Your task to perform on an android device: refresh tabs in the chrome app Image 0: 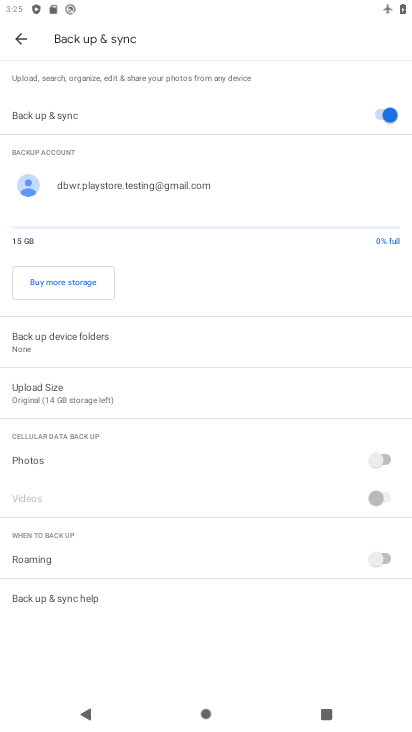
Step 0: press back button
Your task to perform on an android device: refresh tabs in the chrome app Image 1: 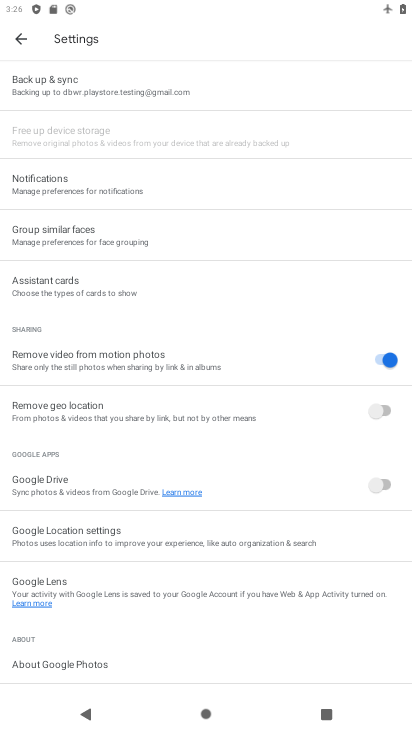
Step 1: press home button
Your task to perform on an android device: refresh tabs in the chrome app Image 2: 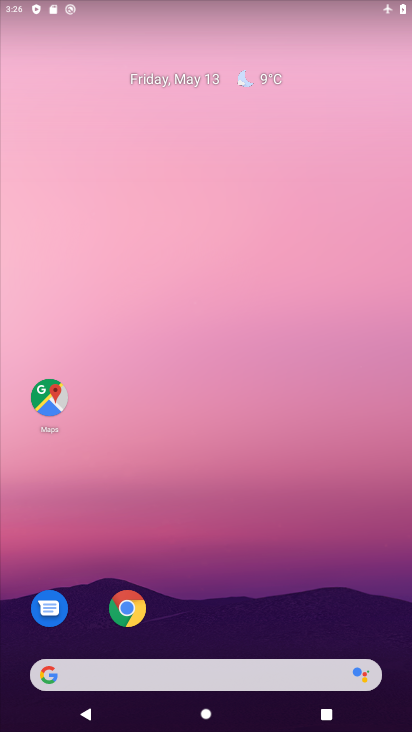
Step 2: click (132, 614)
Your task to perform on an android device: refresh tabs in the chrome app Image 3: 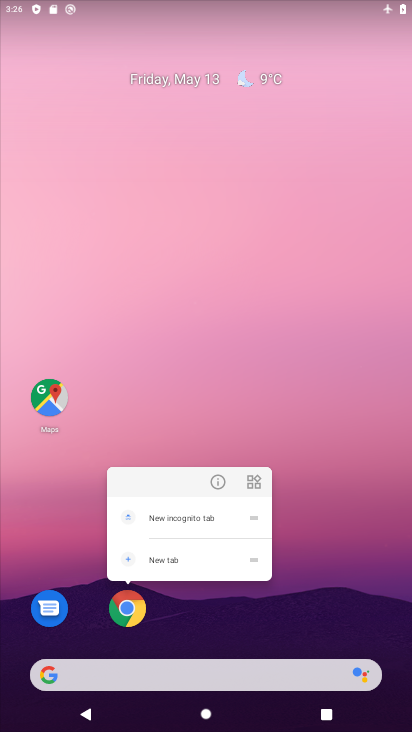
Step 3: click (136, 601)
Your task to perform on an android device: refresh tabs in the chrome app Image 4: 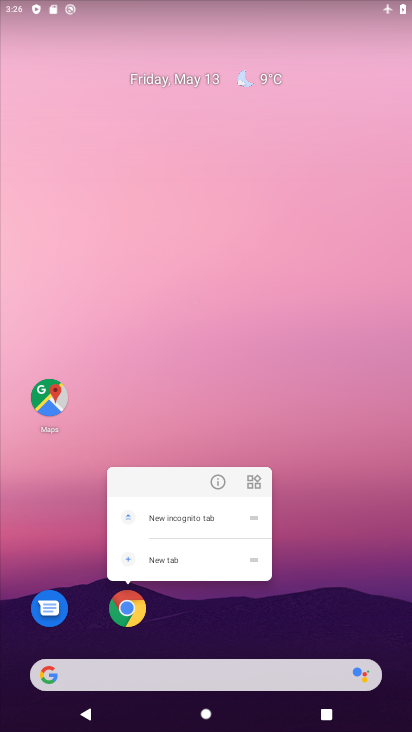
Step 4: click (134, 618)
Your task to perform on an android device: refresh tabs in the chrome app Image 5: 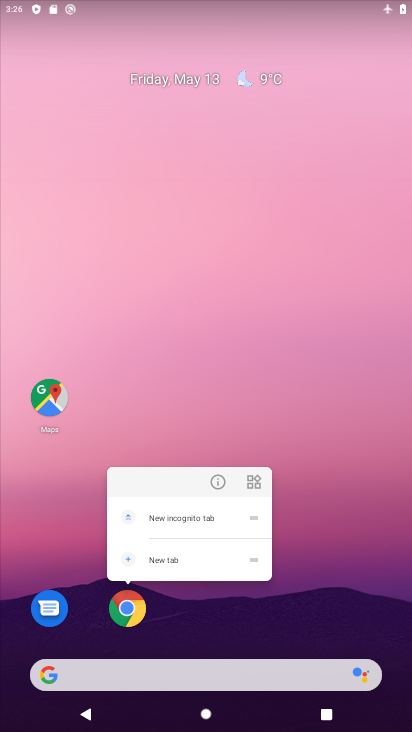
Step 5: click (126, 615)
Your task to perform on an android device: refresh tabs in the chrome app Image 6: 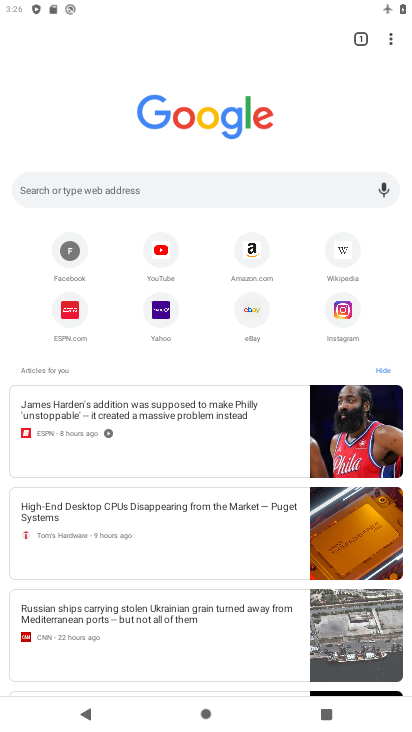
Step 6: click (391, 33)
Your task to perform on an android device: refresh tabs in the chrome app Image 7: 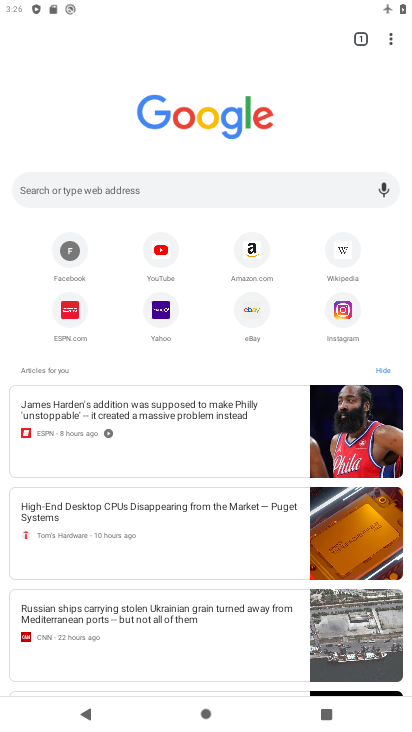
Step 7: task complete